Your task to perform on an android device: toggle airplane mode Image 0: 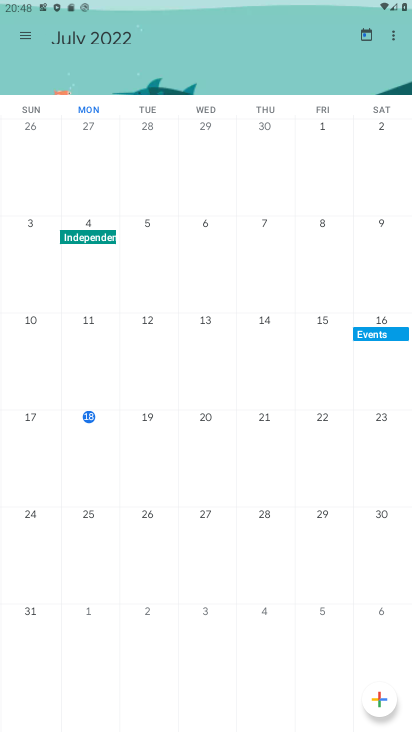
Step 0: press back button
Your task to perform on an android device: toggle airplane mode Image 1: 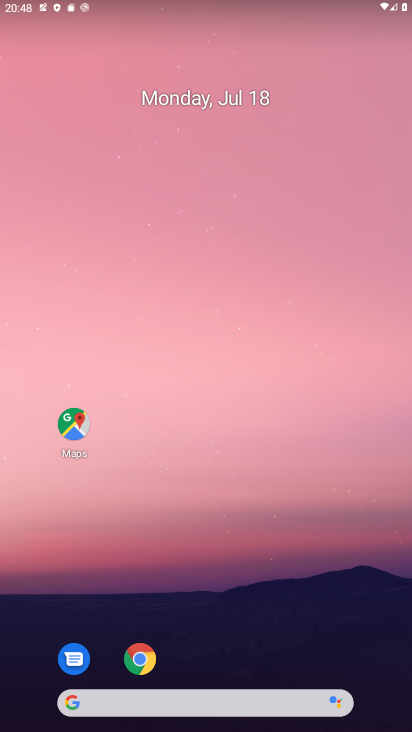
Step 1: drag from (232, 621) to (132, 256)
Your task to perform on an android device: toggle airplane mode Image 2: 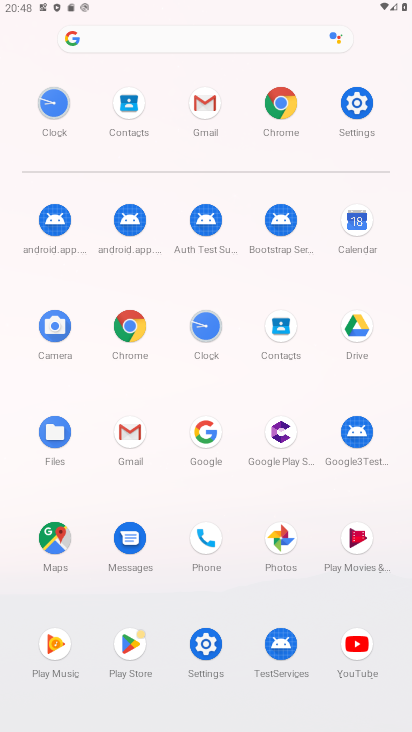
Step 2: click (352, 102)
Your task to perform on an android device: toggle airplane mode Image 3: 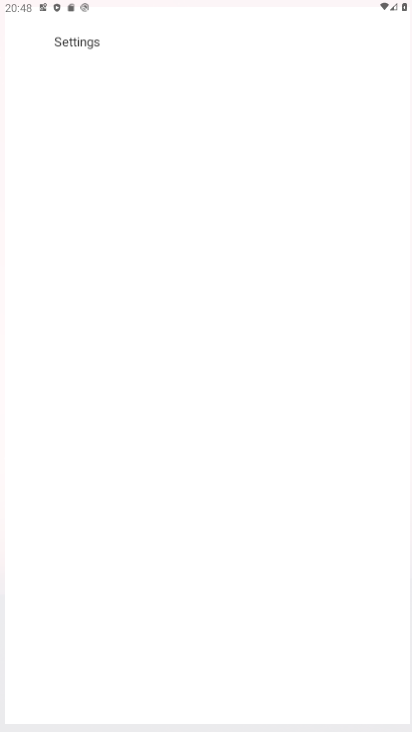
Step 3: click (352, 106)
Your task to perform on an android device: toggle airplane mode Image 4: 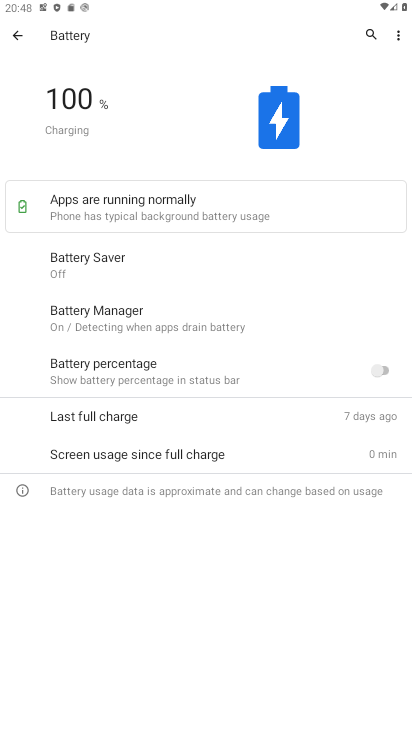
Step 4: click (17, 32)
Your task to perform on an android device: toggle airplane mode Image 5: 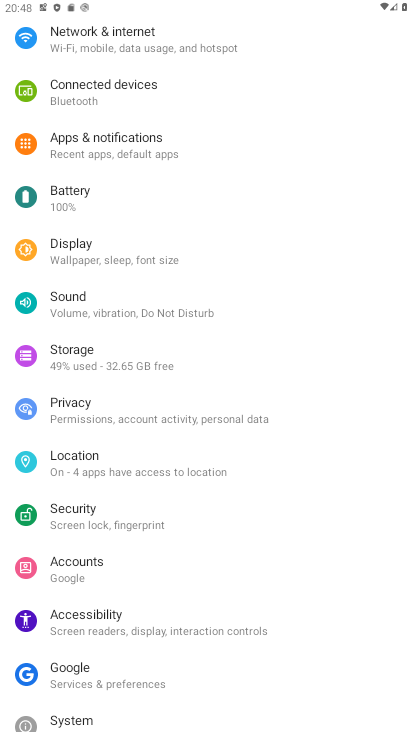
Step 5: click (115, 46)
Your task to perform on an android device: toggle airplane mode Image 6: 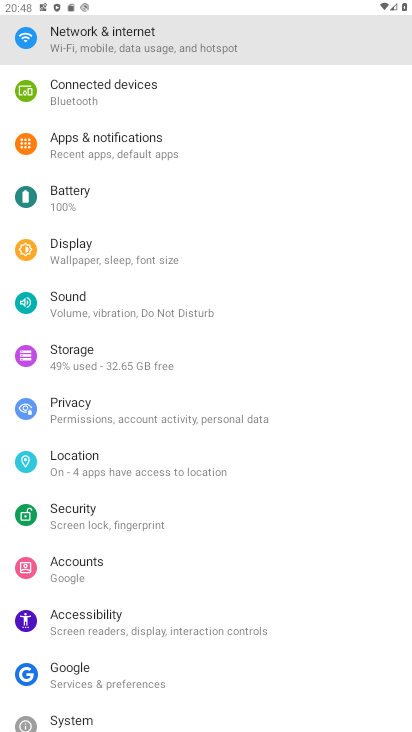
Step 6: click (115, 45)
Your task to perform on an android device: toggle airplane mode Image 7: 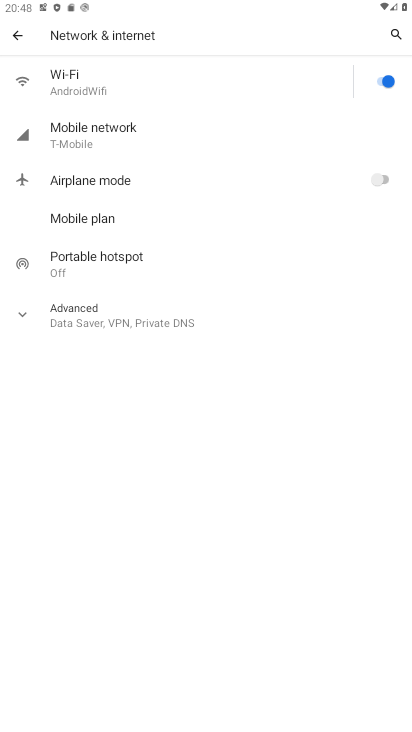
Step 7: click (378, 181)
Your task to perform on an android device: toggle airplane mode Image 8: 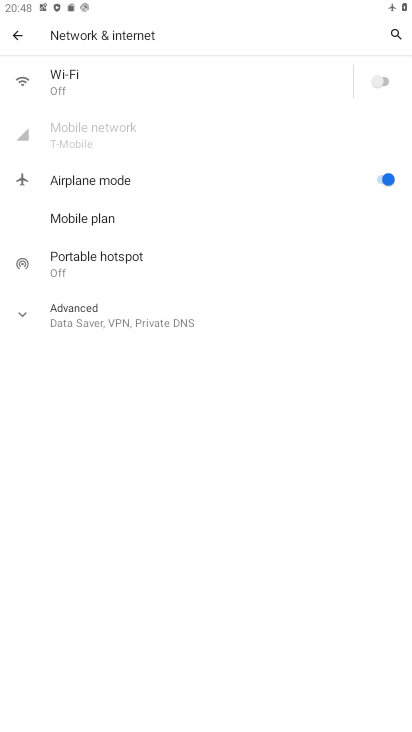
Step 8: task complete